Your task to perform on an android device: Is it going to rain tomorrow? Image 0: 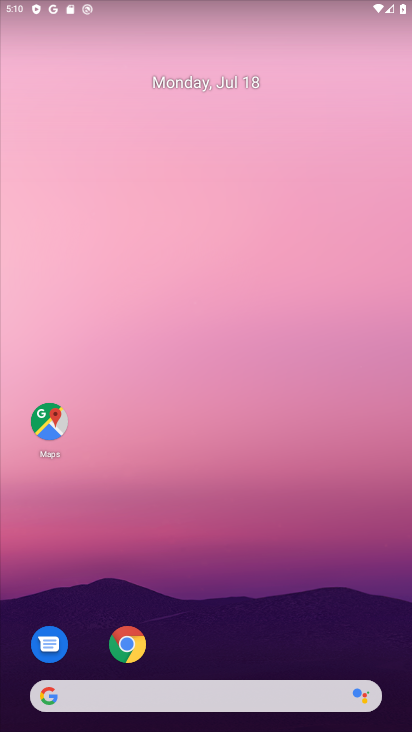
Step 0: press home button
Your task to perform on an android device: Is it going to rain tomorrow? Image 1: 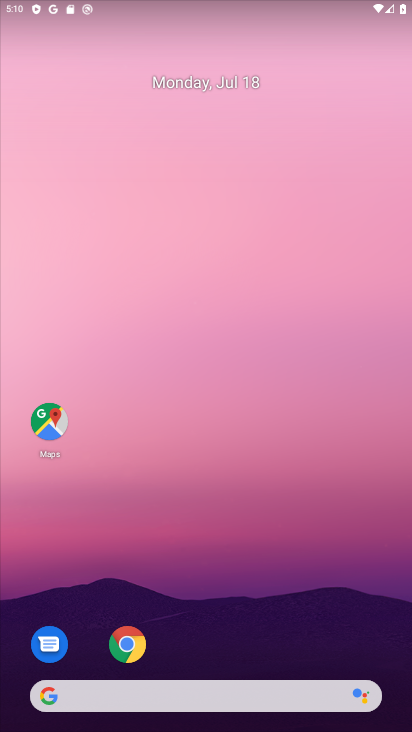
Step 1: click (48, 694)
Your task to perform on an android device: Is it going to rain tomorrow? Image 2: 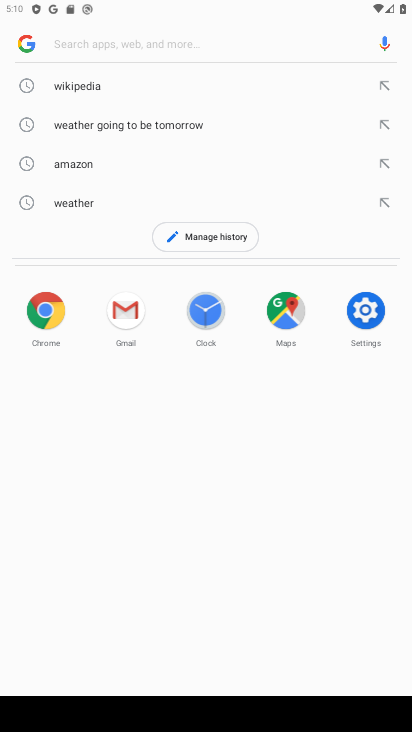
Step 2: type "Is it going to rain tomorrow"
Your task to perform on an android device: Is it going to rain tomorrow? Image 3: 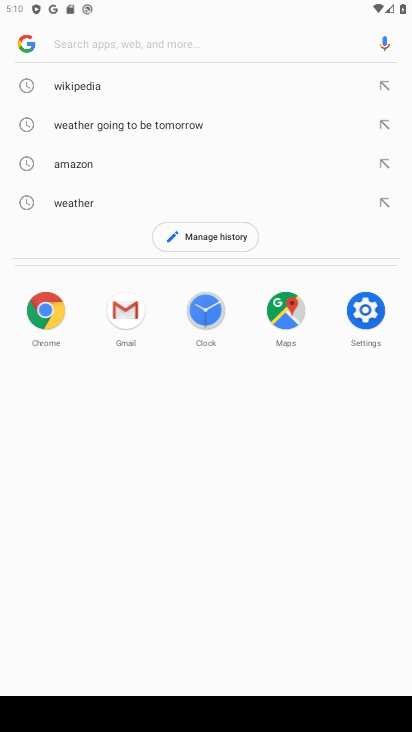
Step 3: click (75, 39)
Your task to perform on an android device: Is it going to rain tomorrow? Image 4: 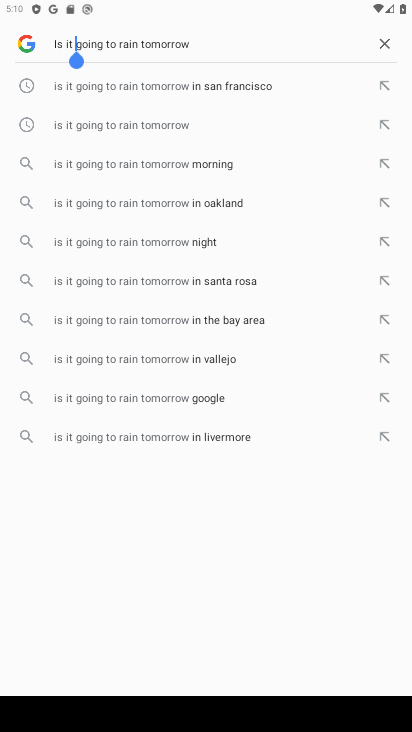
Step 4: press enter
Your task to perform on an android device: Is it going to rain tomorrow? Image 5: 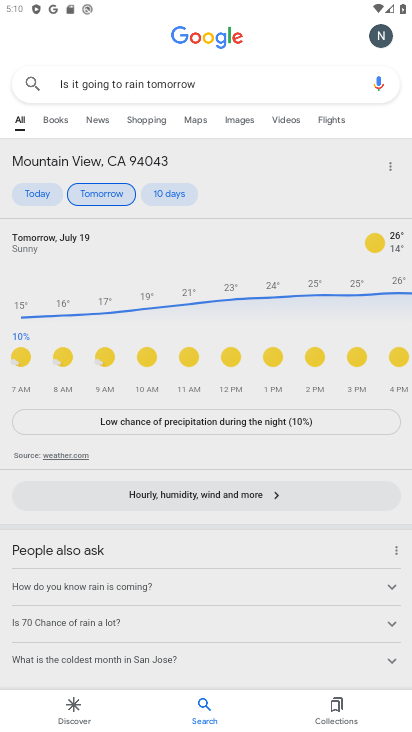
Step 5: task complete